Your task to perform on an android device: Open Reddit.com Image 0: 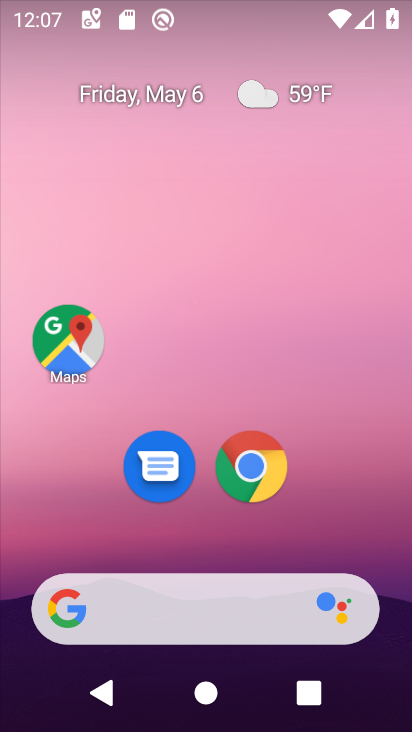
Step 0: click (255, 467)
Your task to perform on an android device: Open Reddit.com Image 1: 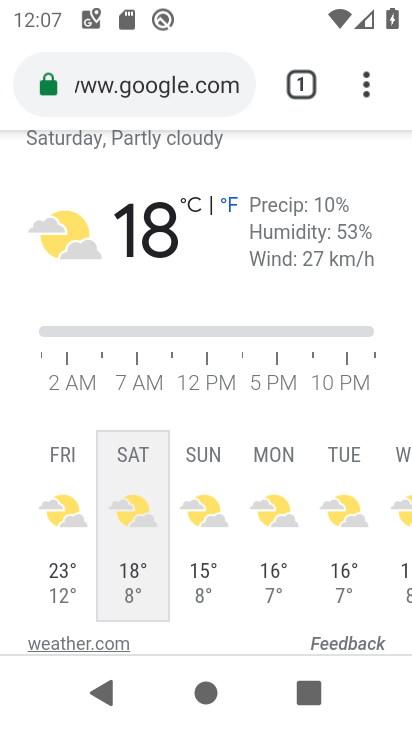
Step 1: click (195, 98)
Your task to perform on an android device: Open Reddit.com Image 2: 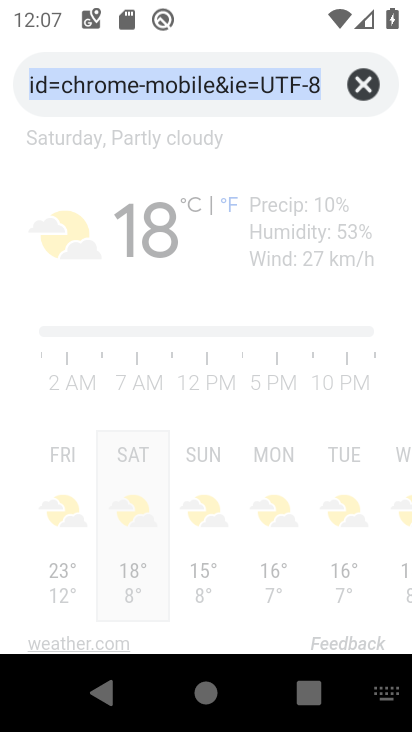
Step 2: type "Reddit.com"
Your task to perform on an android device: Open Reddit.com Image 3: 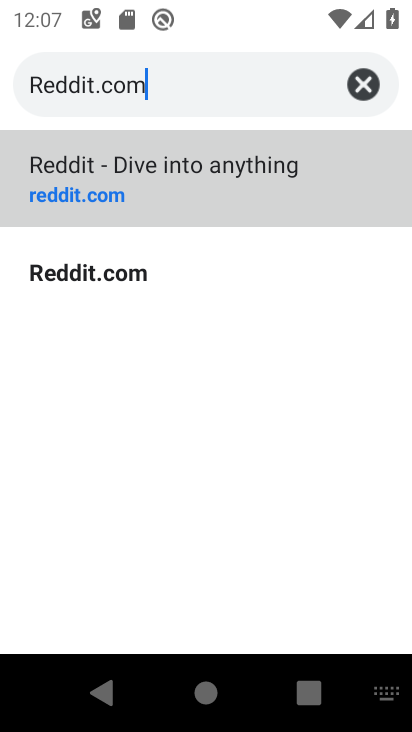
Step 3: click (108, 194)
Your task to perform on an android device: Open Reddit.com Image 4: 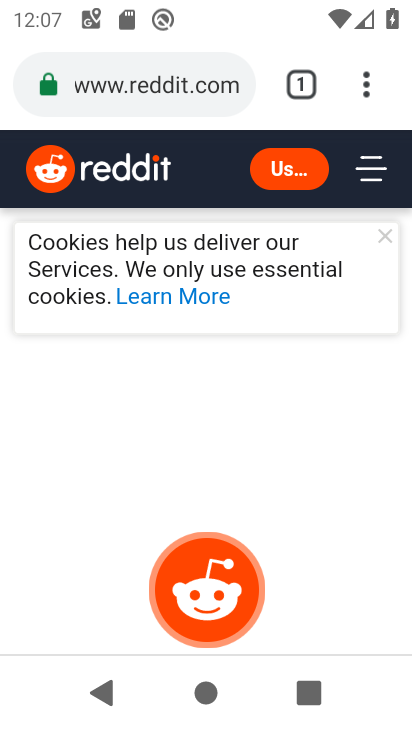
Step 4: task complete